Your task to perform on an android device: turn notification dots off Image 0: 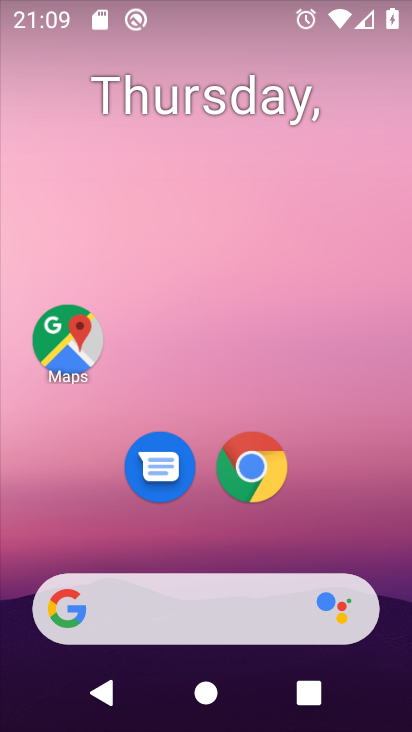
Step 0: drag from (317, 508) to (379, 7)
Your task to perform on an android device: turn notification dots off Image 1: 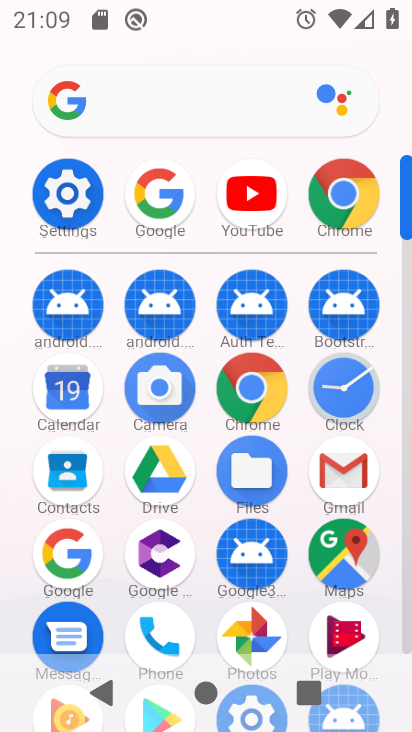
Step 1: click (73, 177)
Your task to perform on an android device: turn notification dots off Image 2: 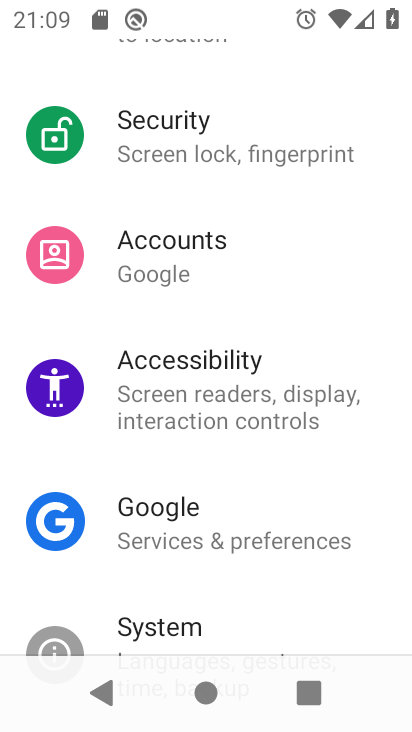
Step 2: drag from (262, 124) to (244, 368)
Your task to perform on an android device: turn notification dots off Image 3: 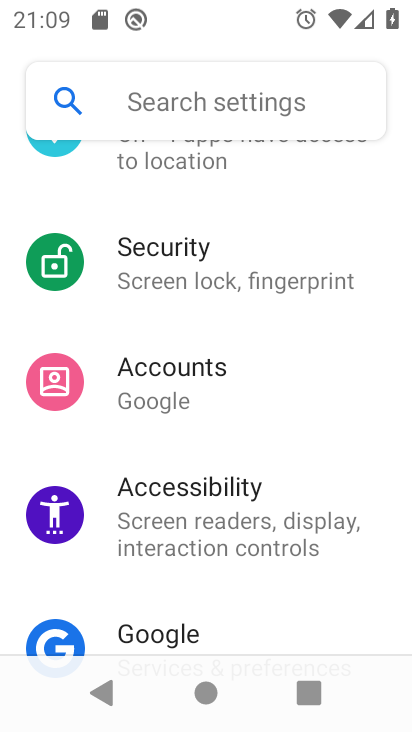
Step 3: drag from (240, 406) to (239, 455)
Your task to perform on an android device: turn notification dots off Image 4: 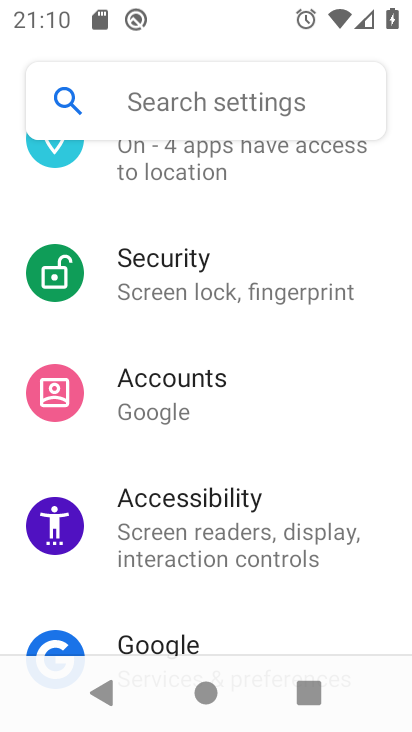
Step 4: click (245, 84)
Your task to perform on an android device: turn notification dots off Image 5: 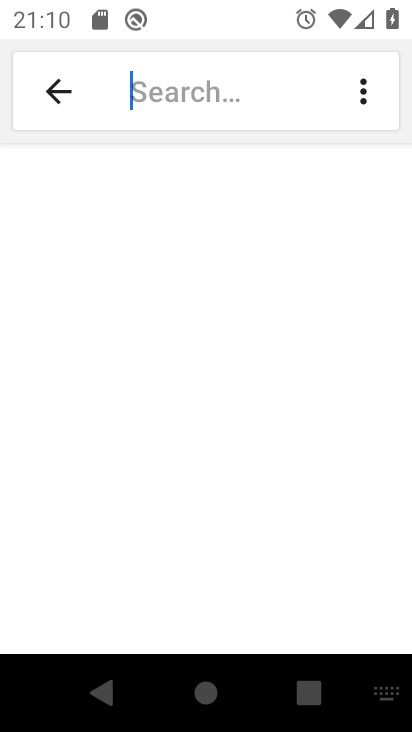
Step 5: click (198, 71)
Your task to perform on an android device: turn notification dots off Image 6: 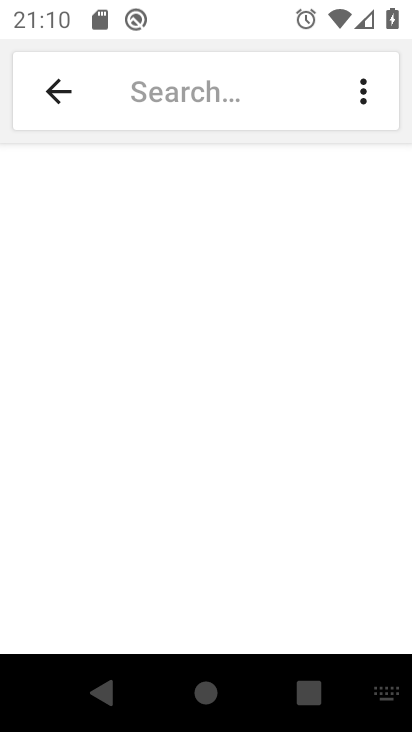
Step 6: type "notification dots"
Your task to perform on an android device: turn notification dots off Image 7: 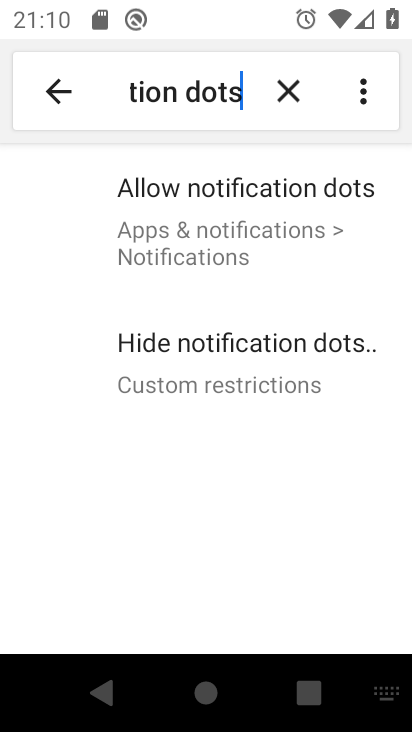
Step 7: click (230, 206)
Your task to perform on an android device: turn notification dots off Image 8: 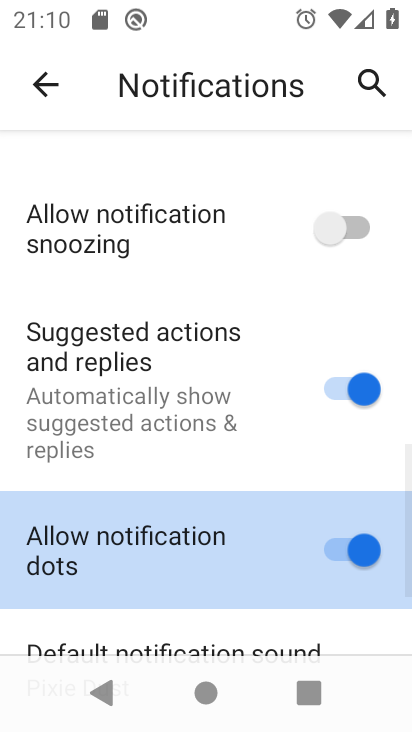
Step 8: click (356, 545)
Your task to perform on an android device: turn notification dots off Image 9: 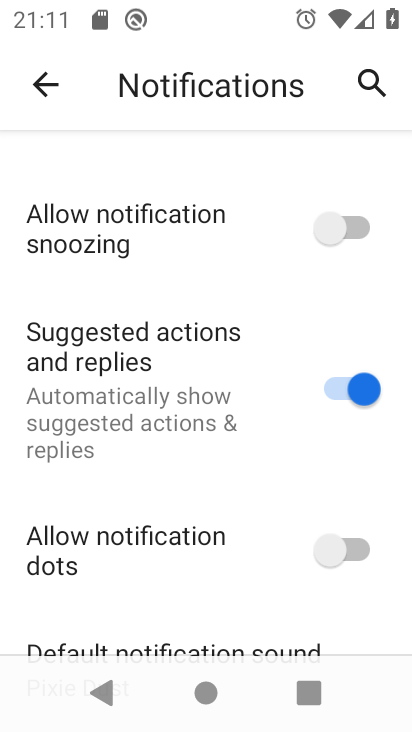
Step 9: task complete